Your task to perform on an android device: turn vacation reply on in the gmail app Image 0: 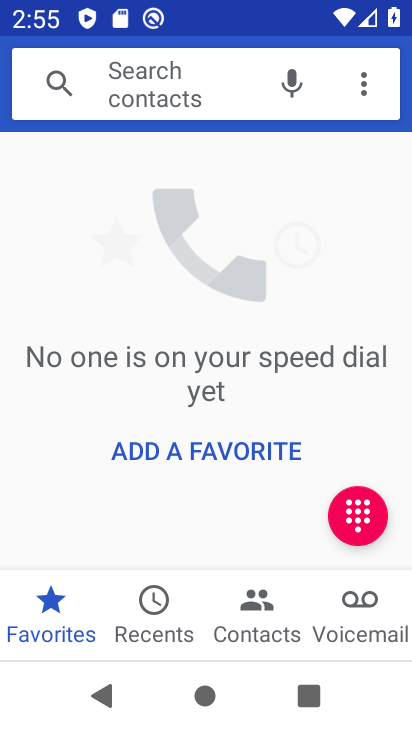
Step 0: press home button
Your task to perform on an android device: turn vacation reply on in the gmail app Image 1: 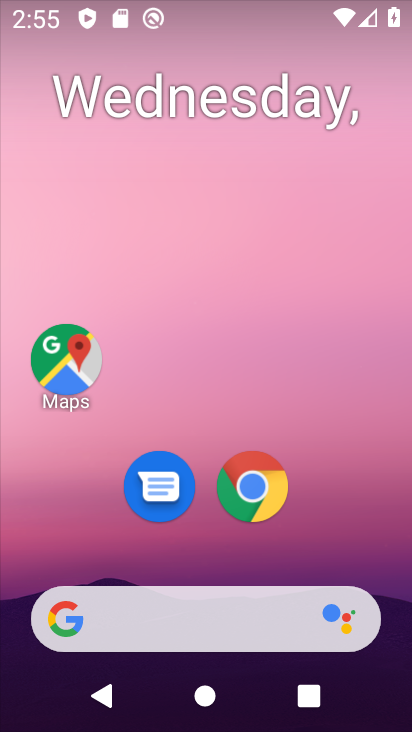
Step 1: drag from (173, 578) to (258, 166)
Your task to perform on an android device: turn vacation reply on in the gmail app Image 2: 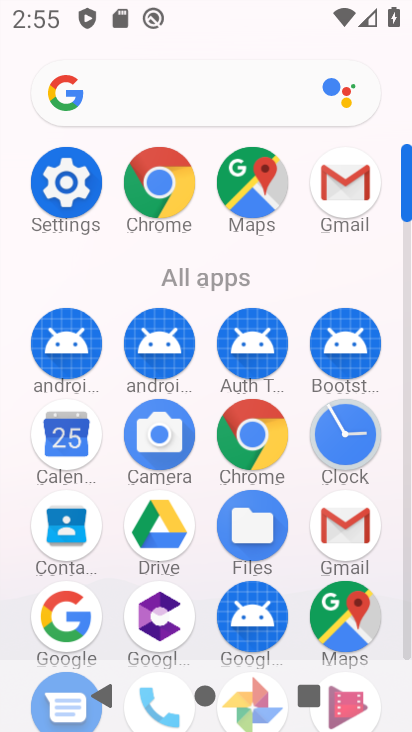
Step 2: click (345, 536)
Your task to perform on an android device: turn vacation reply on in the gmail app Image 3: 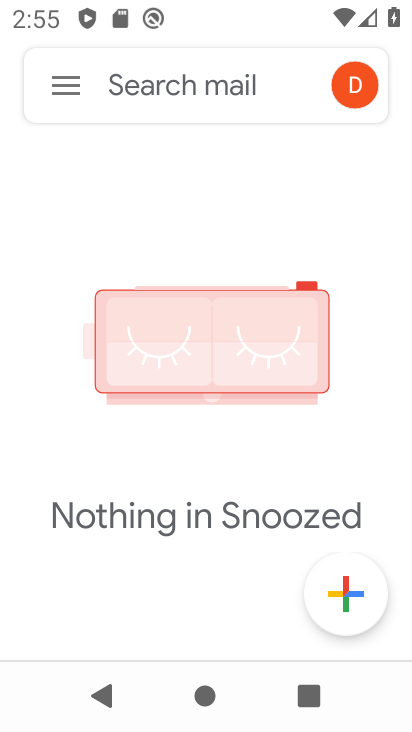
Step 3: click (55, 84)
Your task to perform on an android device: turn vacation reply on in the gmail app Image 4: 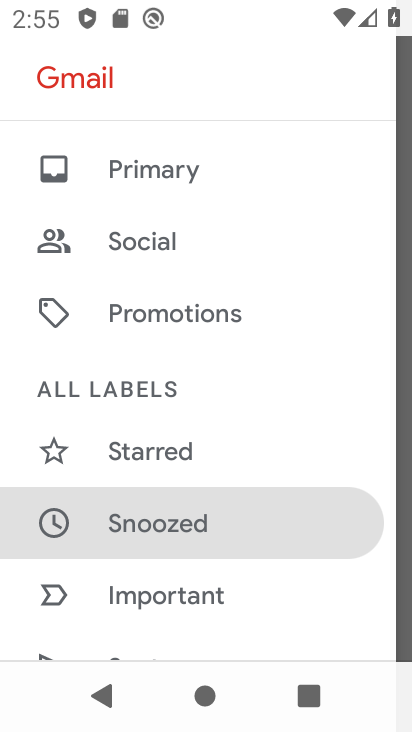
Step 4: drag from (113, 622) to (163, 157)
Your task to perform on an android device: turn vacation reply on in the gmail app Image 5: 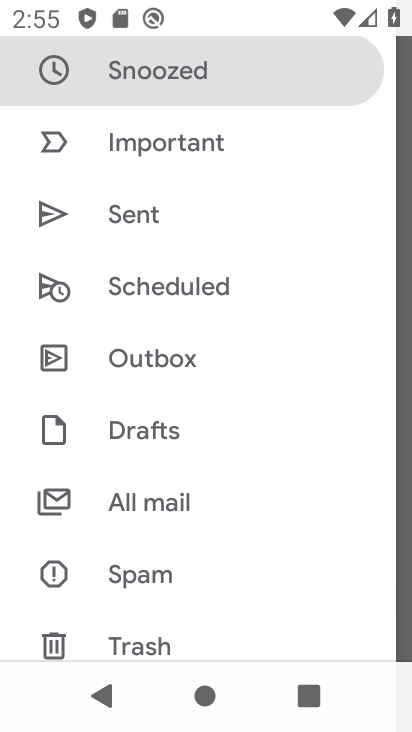
Step 5: drag from (132, 596) to (195, 186)
Your task to perform on an android device: turn vacation reply on in the gmail app Image 6: 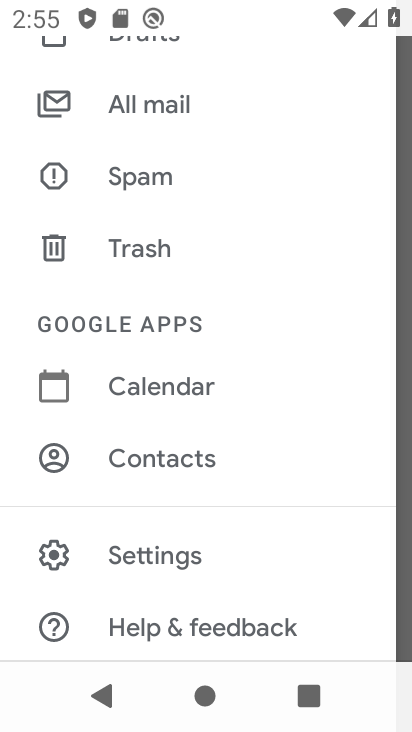
Step 6: click (173, 556)
Your task to perform on an android device: turn vacation reply on in the gmail app Image 7: 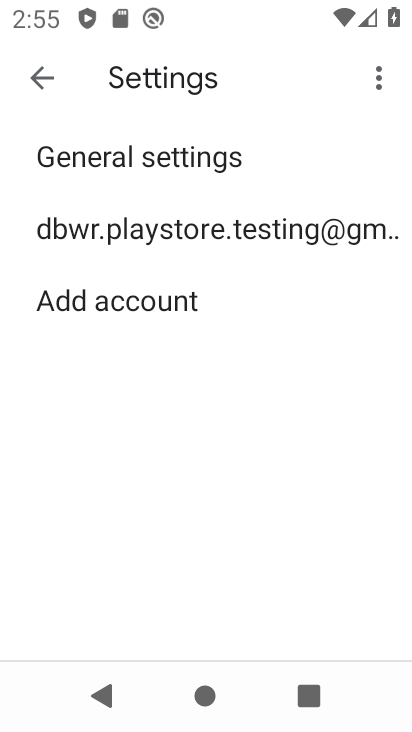
Step 7: click (91, 235)
Your task to perform on an android device: turn vacation reply on in the gmail app Image 8: 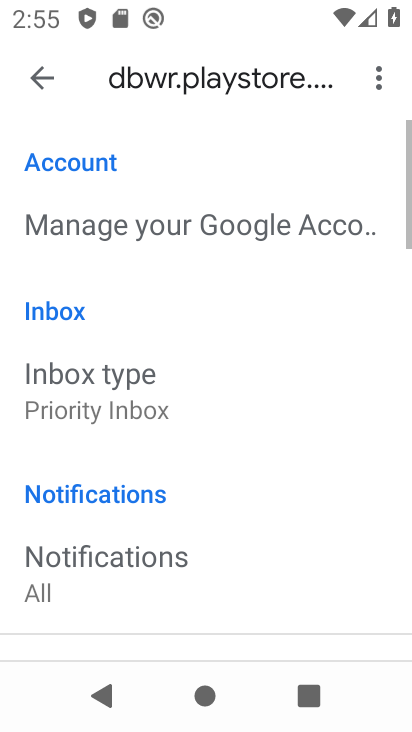
Step 8: click (91, 235)
Your task to perform on an android device: turn vacation reply on in the gmail app Image 9: 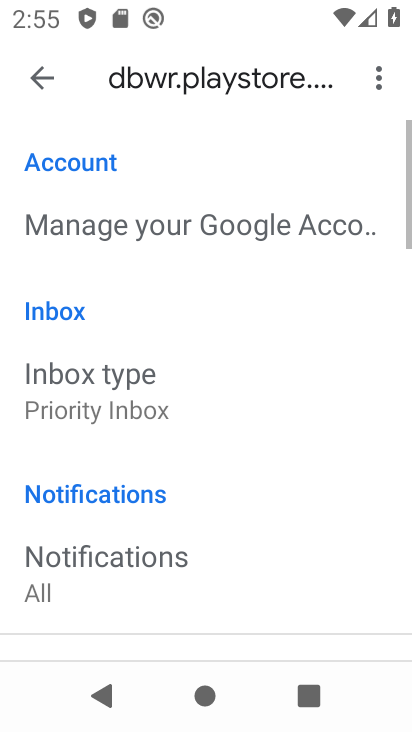
Step 9: drag from (136, 505) to (156, 94)
Your task to perform on an android device: turn vacation reply on in the gmail app Image 10: 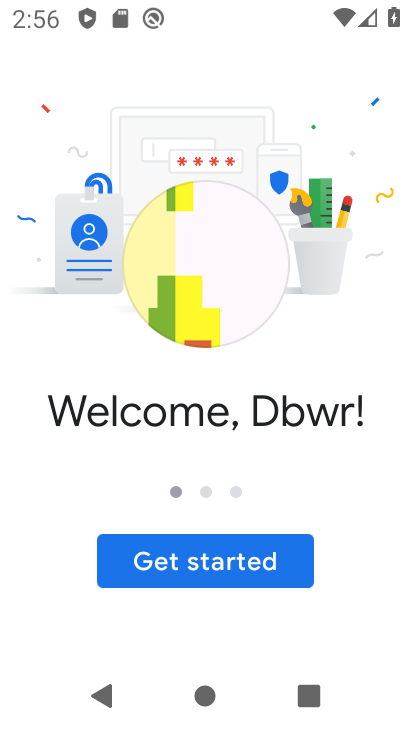
Step 10: press home button
Your task to perform on an android device: turn vacation reply on in the gmail app Image 11: 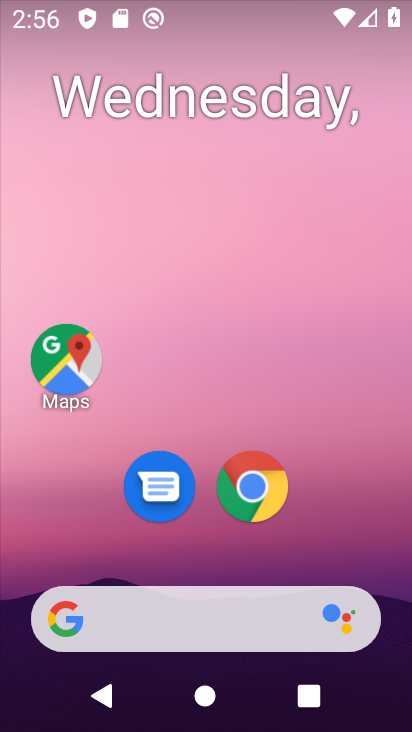
Step 11: drag from (141, 607) to (257, 154)
Your task to perform on an android device: turn vacation reply on in the gmail app Image 12: 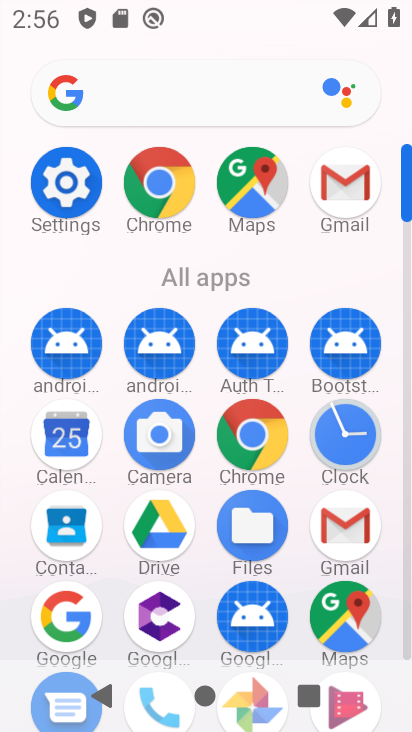
Step 12: click (331, 194)
Your task to perform on an android device: turn vacation reply on in the gmail app Image 13: 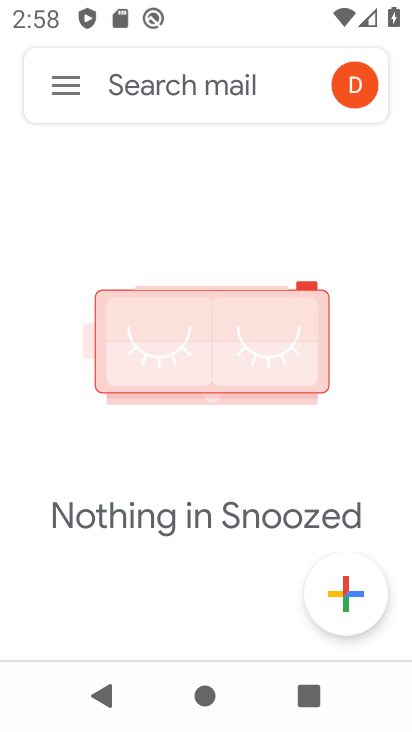
Step 13: click (69, 98)
Your task to perform on an android device: turn vacation reply on in the gmail app Image 14: 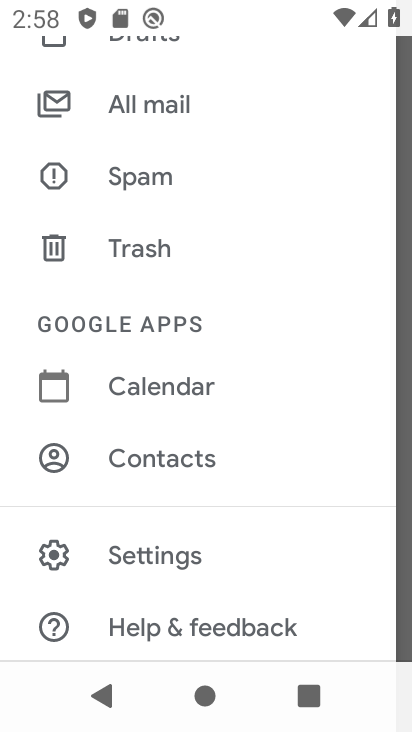
Step 14: click (178, 563)
Your task to perform on an android device: turn vacation reply on in the gmail app Image 15: 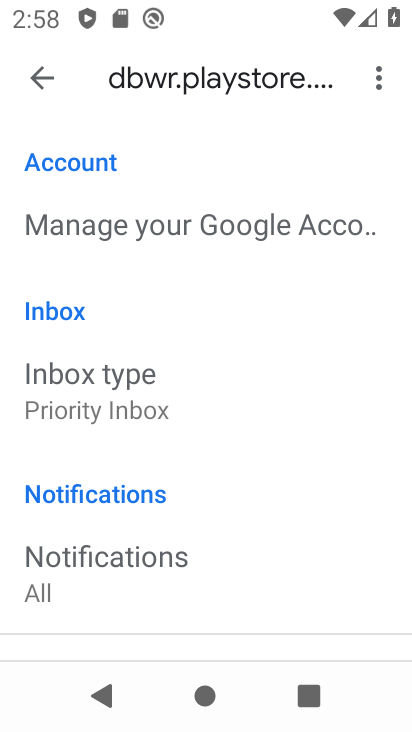
Step 15: drag from (169, 523) to (228, 270)
Your task to perform on an android device: turn vacation reply on in the gmail app Image 16: 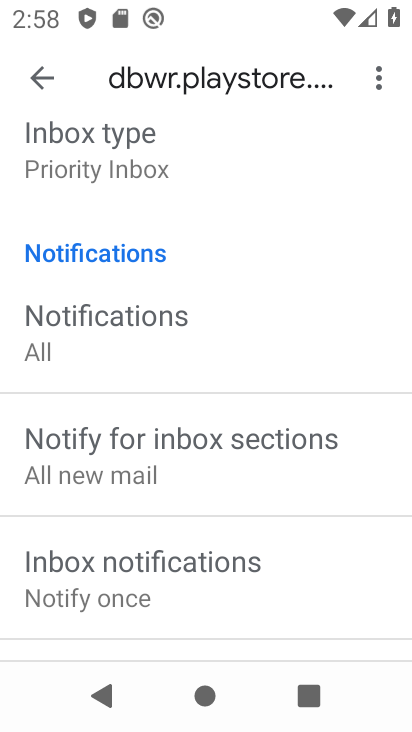
Step 16: drag from (240, 622) to (280, 232)
Your task to perform on an android device: turn vacation reply on in the gmail app Image 17: 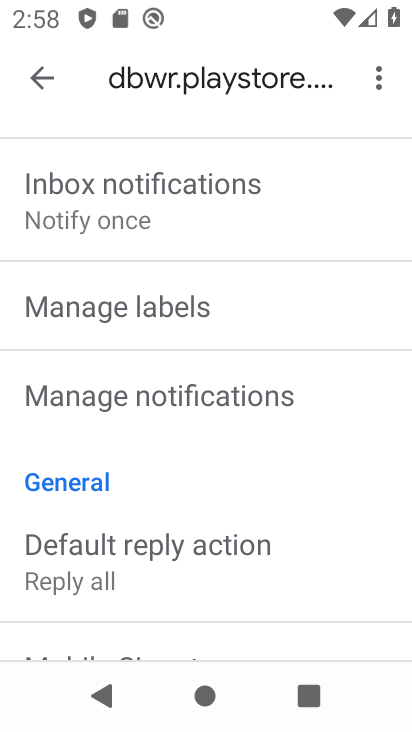
Step 17: drag from (218, 509) to (376, 10)
Your task to perform on an android device: turn vacation reply on in the gmail app Image 18: 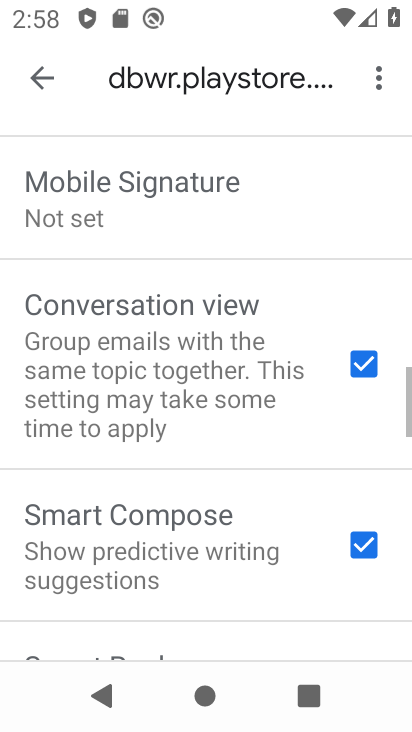
Step 18: drag from (196, 394) to (313, 49)
Your task to perform on an android device: turn vacation reply on in the gmail app Image 19: 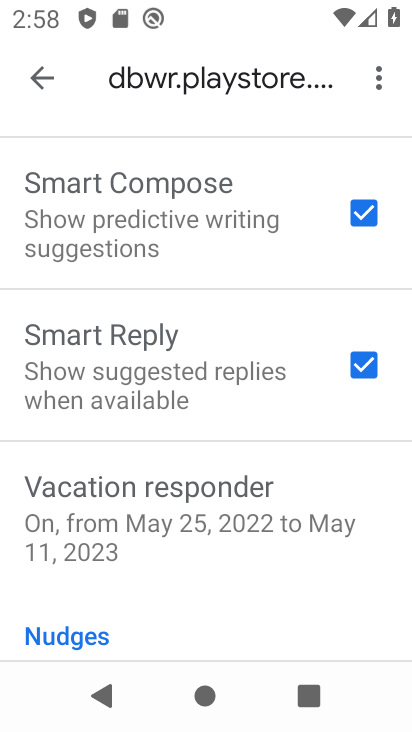
Step 19: click (165, 508)
Your task to perform on an android device: turn vacation reply on in the gmail app Image 20: 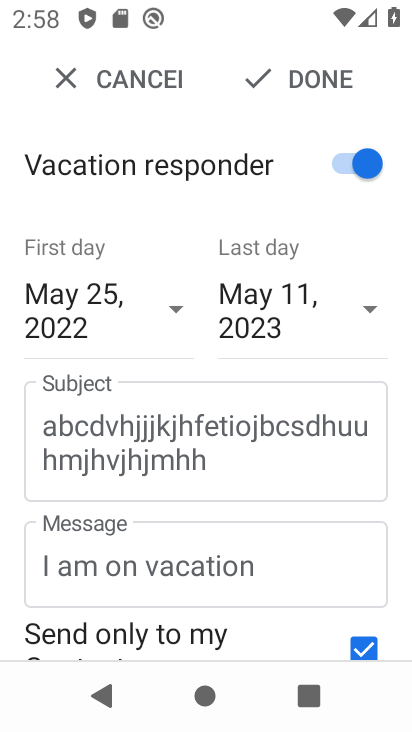
Step 20: click (338, 81)
Your task to perform on an android device: turn vacation reply on in the gmail app Image 21: 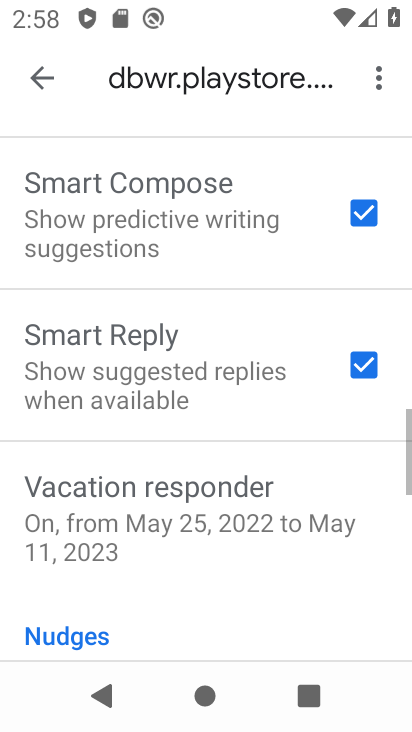
Step 21: task complete